Your task to perform on an android device: Go to Reddit.com Image 0: 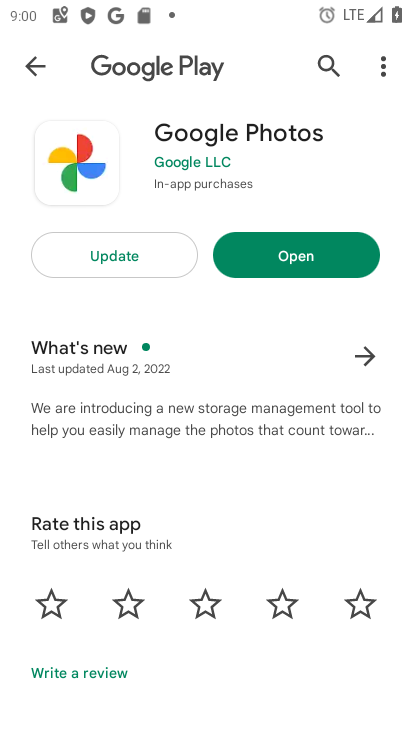
Step 0: press home button
Your task to perform on an android device: Go to Reddit.com Image 1: 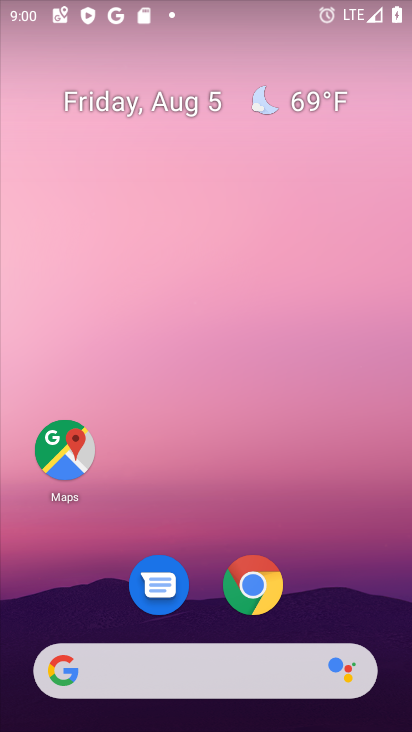
Step 1: click (234, 673)
Your task to perform on an android device: Go to Reddit.com Image 2: 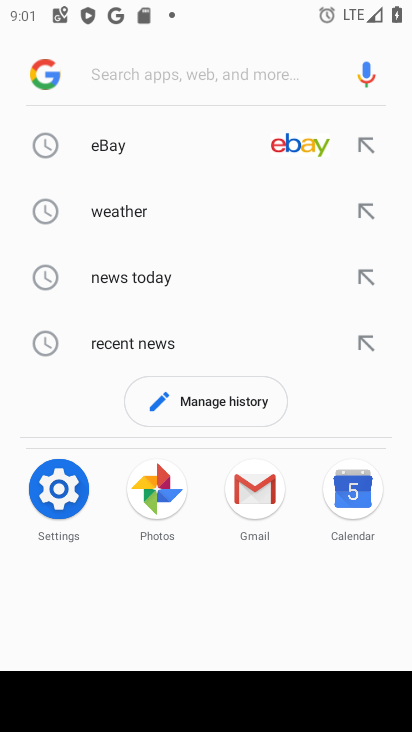
Step 2: type "reddit.com"
Your task to perform on an android device: Go to Reddit.com Image 3: 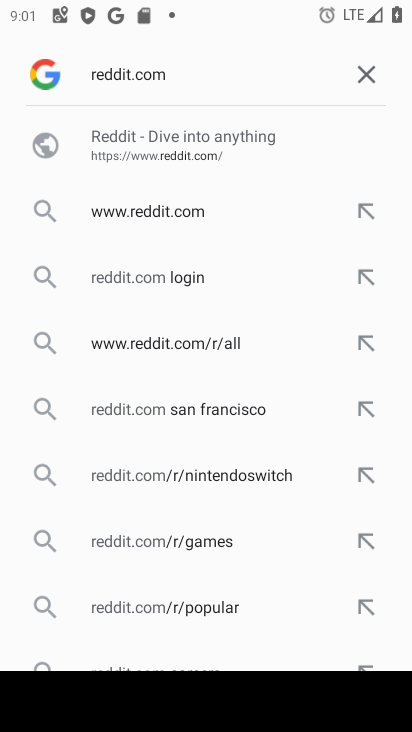
Step 3: click (232, 145)
Your task to perform on an android device: Go to Reddit.com Image 4: 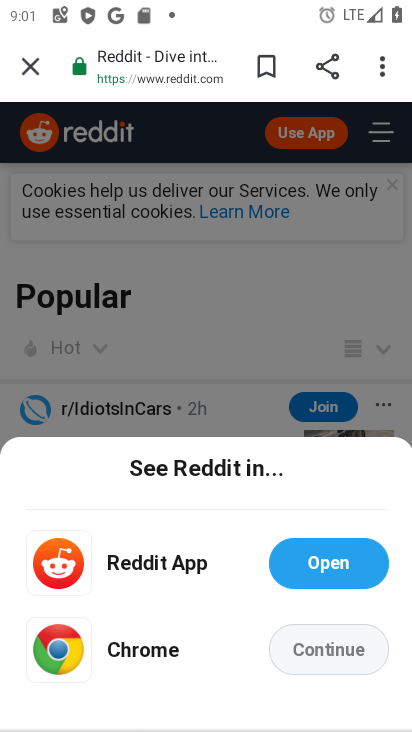
Step 4: click (324, 654)
Your task to perform on an android device: Go to Reddit.com Image 5: 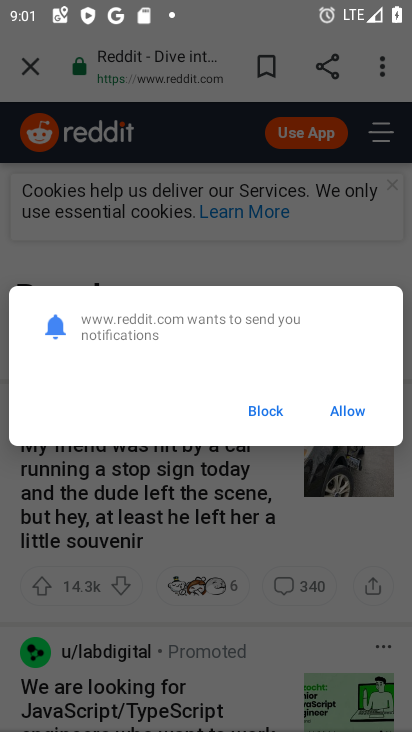
Step 5: click (265, 411)
Your task to perform on an android device: Go to Reddit.com Image 6: 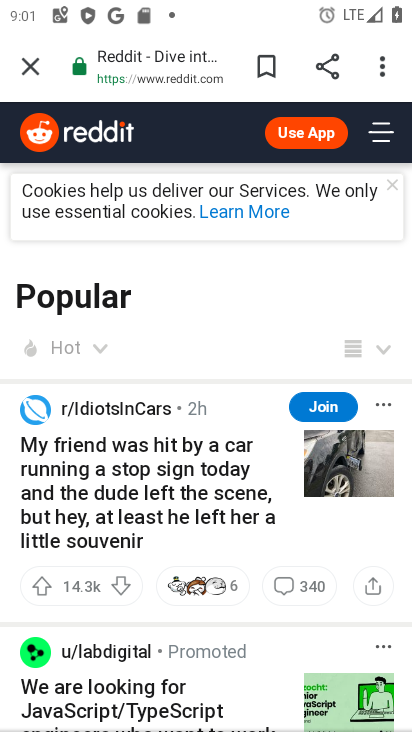
Step 6: task complete